Your task to perform on an android device: What's the weather going to be tomorrow? Image 0: 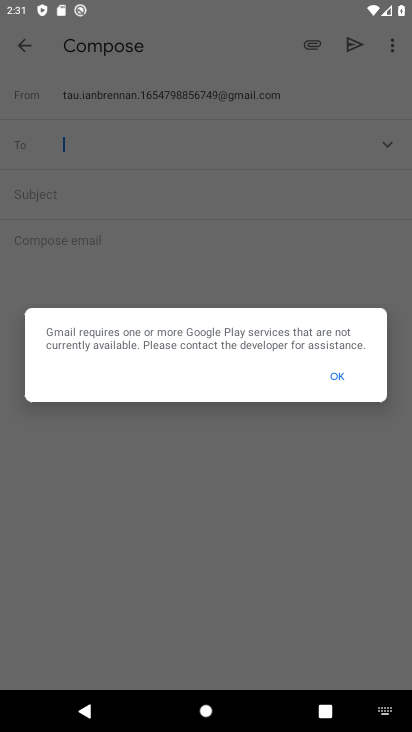
Step 0: press home button
Your task to perform on an android device: What's the weather going to be tomorrow? Image 1: 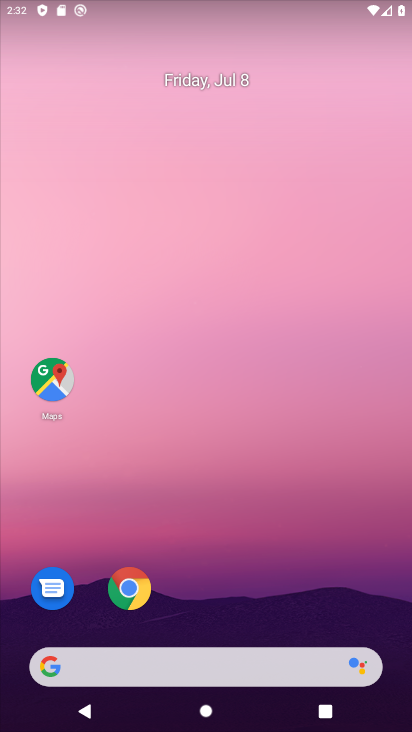
Step 1: drag from (179, 588) to (220, 29)
Your task to perform on an android device: What's the weather going to be tomorrow? Image 2: 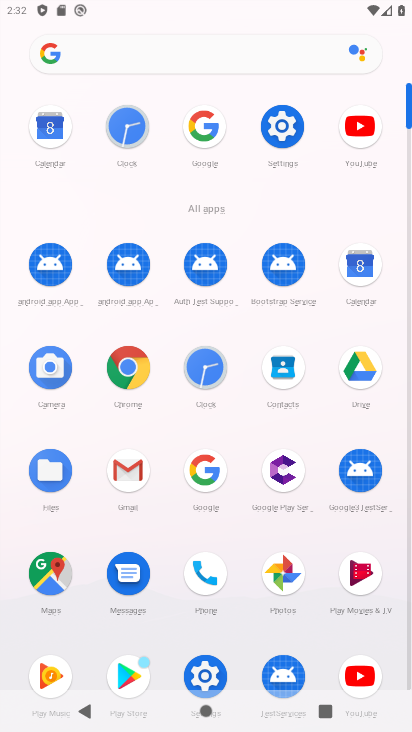
Step 2: click (208, 127)
Your task to perform on an android device: What's the weather going to be tomorrow? Image 3: 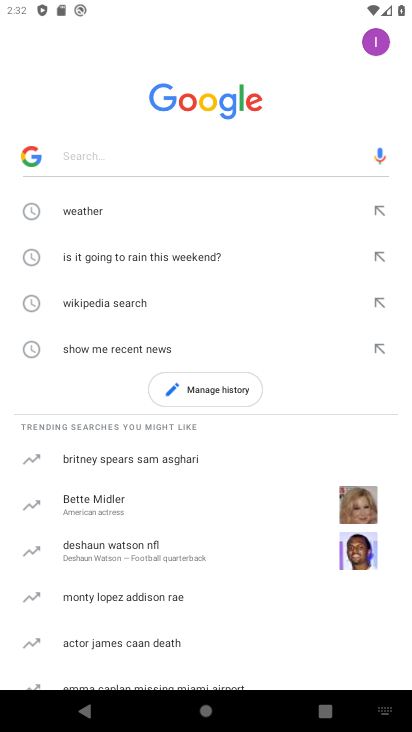
Step 3: click (85, 205)
Your task to perform on an android device: What's the weather going to be tomorrow? Image 4: 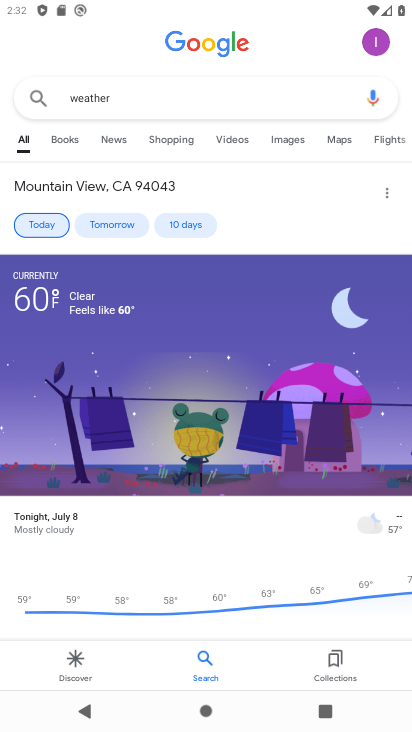
Step 4: click (115, 233)
Your task to perform on an android device: What's the weather going to be tomorrow? Image 5: 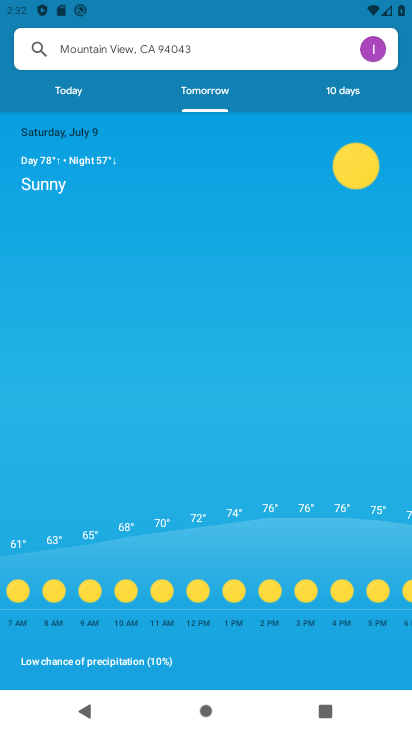
Step 5: task complete